Your task to perform on an android device: turn vacation reply on in the gmail app Image 0: 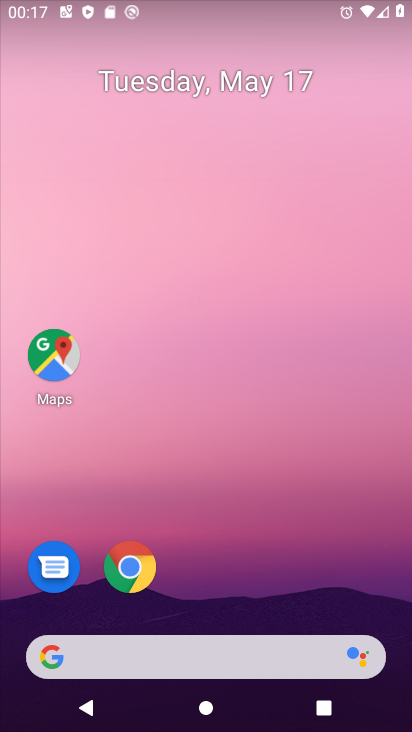
Step 0: drag from (211, 549) to (196, 173)
Your task to perform on an android device: turn vacation reply on in the gmail app Image 1: 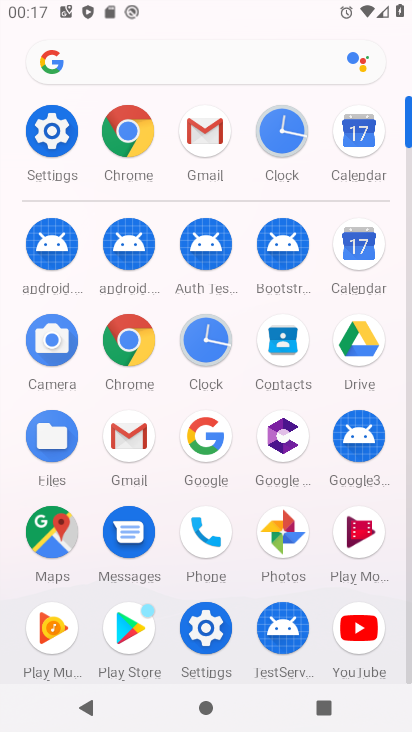
Step 1: click (188, 140)
Your task to perform on an android device: turn vacation reply on in the gmail app Image 2: 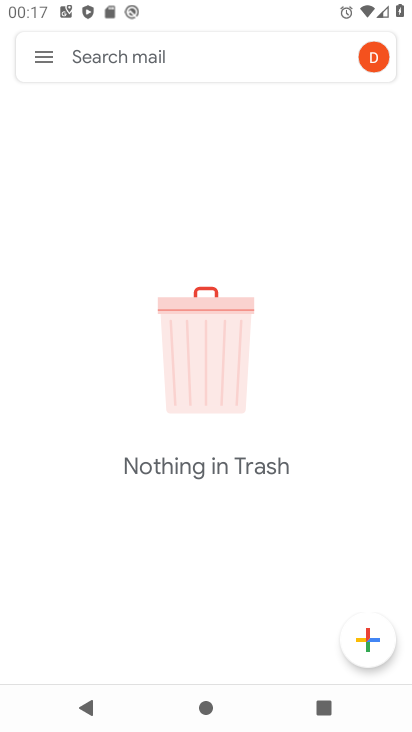
Step 2: click (37, 47)
Your task to perform on an android device: turn vacation reply on in the gmail app Image 3: 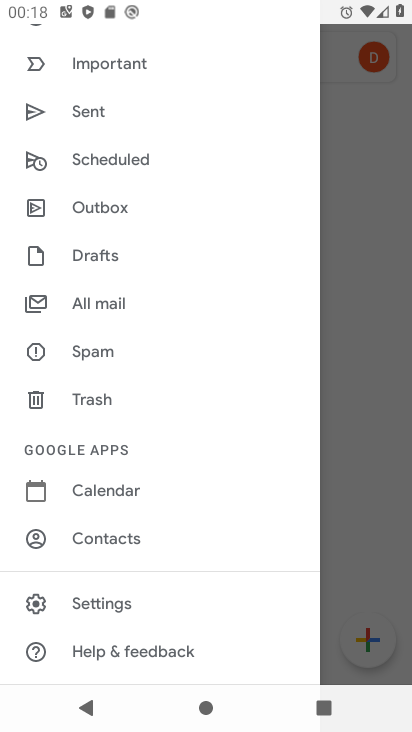
Step 3: click (116, 602)
Your task to perform on an android device: turn vacation reply on in the gmail app Image 4: 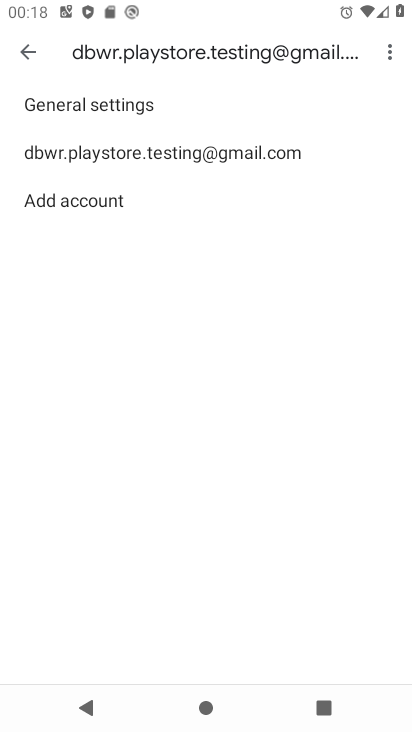
Step 4: click (86, 152)
Your task to perform on an android device: turn vacation reply on in the gmail app Image 5: 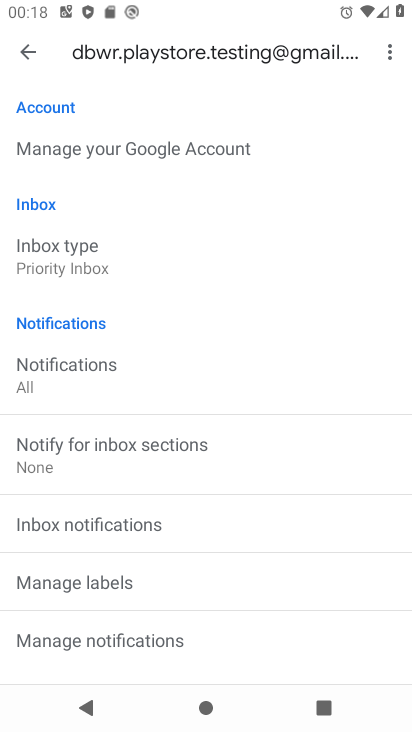
Step 5: drag from (206, 519) to (167, 47)
Your task to perform on an android device: turn vacation reply on in the gmail app Image 6: 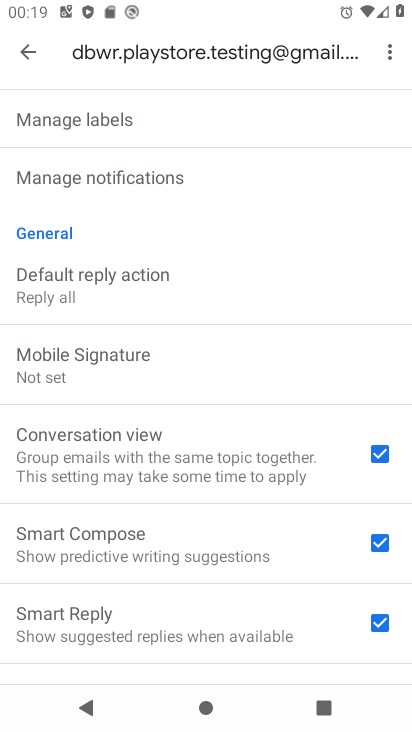
Step 6: drag from (209, 524) to (221, 214)
Your task to perform on an android device: turn vacation reply on in the gmail app Image 7: 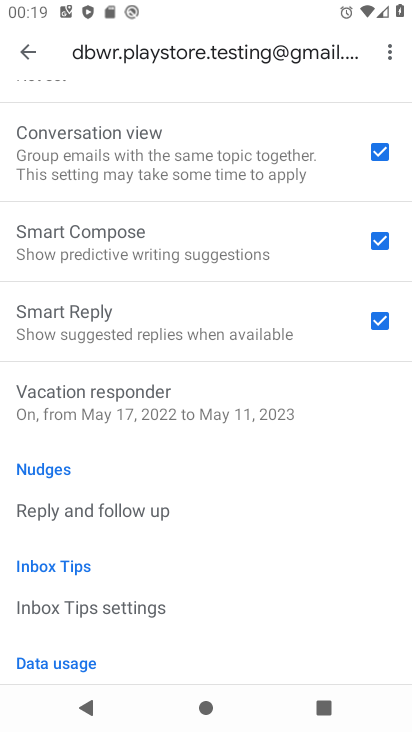
Step 7: click (98, 386)
Your task to perform on an android device: turn vacation reply on in the gmail app Image 8: 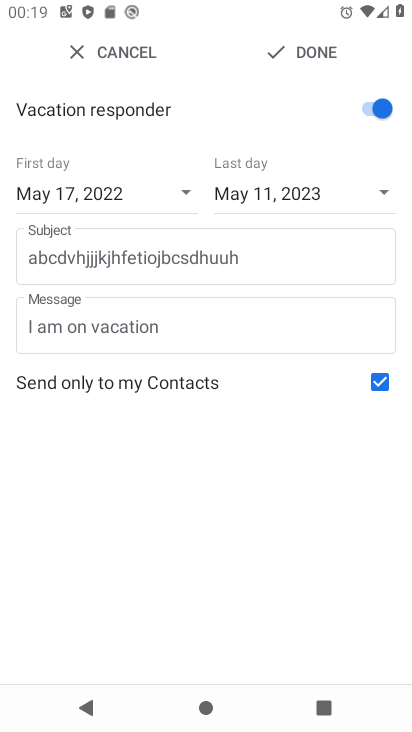
Step 8: task complete